Your task to perform on an android device: turn off notifications in google photos Image 0: 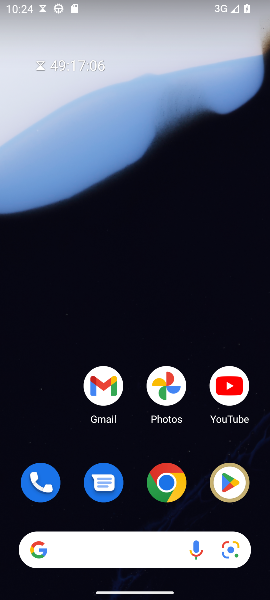
Step 0: drag from (82, 556) to (66, 167)
Your task to perform on an android device: turn off notifications in google photos Image 1: 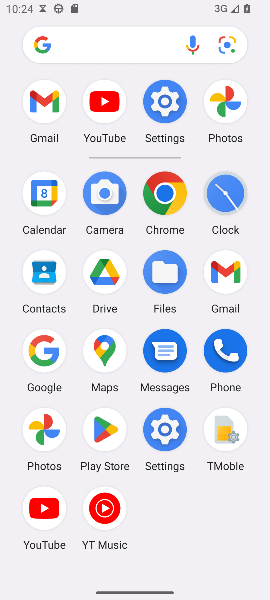
Step 1: click (229, 98)
Your task to perform on an android device: turn off notifications in google photos Image 2: 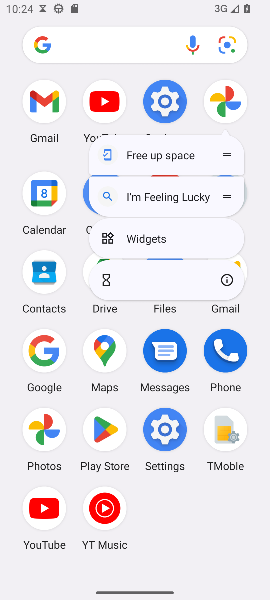
Step 2: click (229, 98)
Your task to perform on an android device: turn off notifications in google photos Image 3: 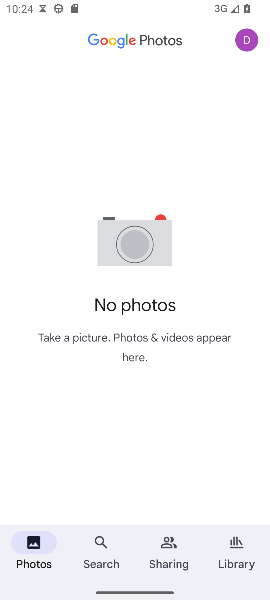
Step 3: click (241, 41)
Your task to perform on an android device: turn off notifications in google photos Image 4: 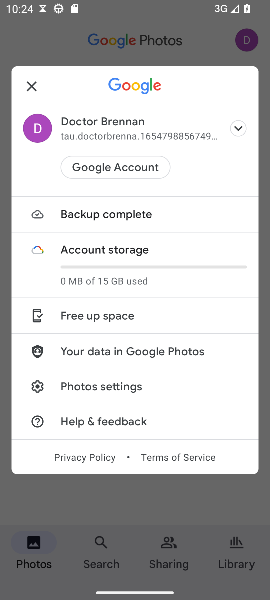
Step 4: click (111, 388)
Your task to perform on an android device: turn off notifications in google photos Image 5: 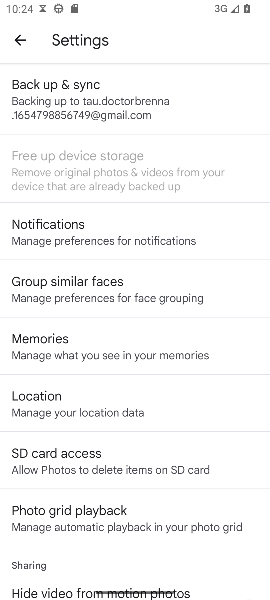
Step 5: click (41, 231)
Your task to perform on an android device: turn off notifications in google photos Image 6: 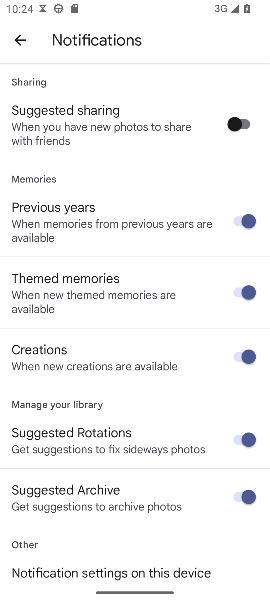
Step 6: drag from (123, 124) to (180, 371)
Your task to perform on an android device: turn off notifications in google photos Image 7: 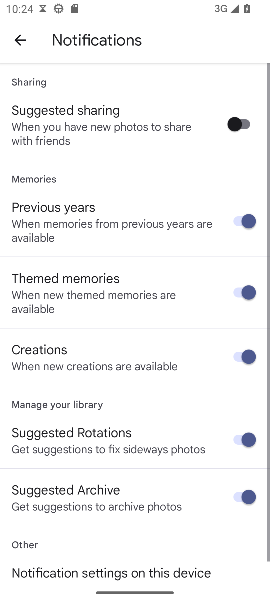
Step 7: drag from (93, 448) to (96, 213)
Your task to perform on an android device: turn off notifications in google photos Image 8: 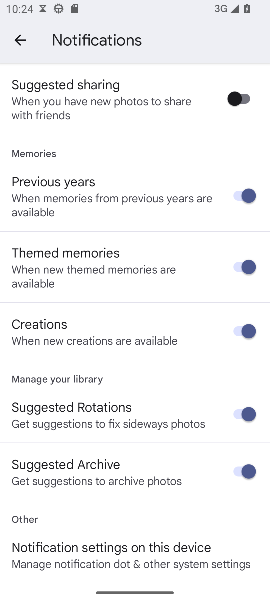
Step 8: drag from (99, 447) to (111, 151)
Your task to perform on an android device: turn off notifications in google photos Image 9: 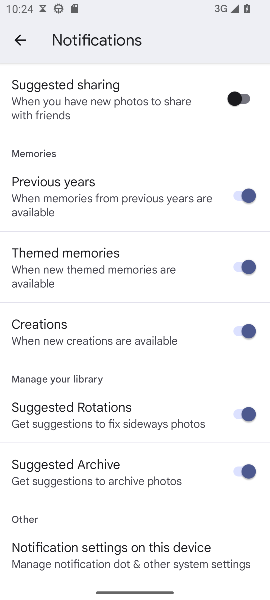
Step 9: click (81, 578)
Your task to perform on an android device: turn off notifications in google photos Image 10: 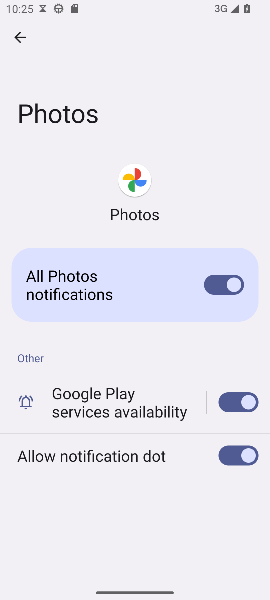
Step 10: click (246, 286)
Your task to perform on an android device: turn off notifications in google photos Image 11: 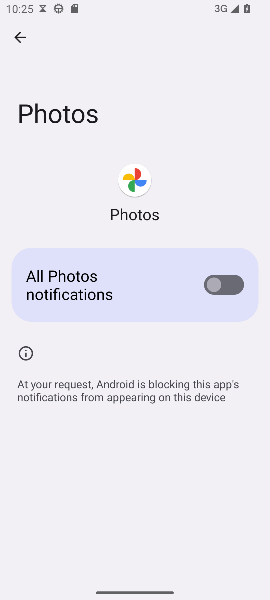
Step 11: task complete